Your task to perform on an android device: Open the calendar Image 0: 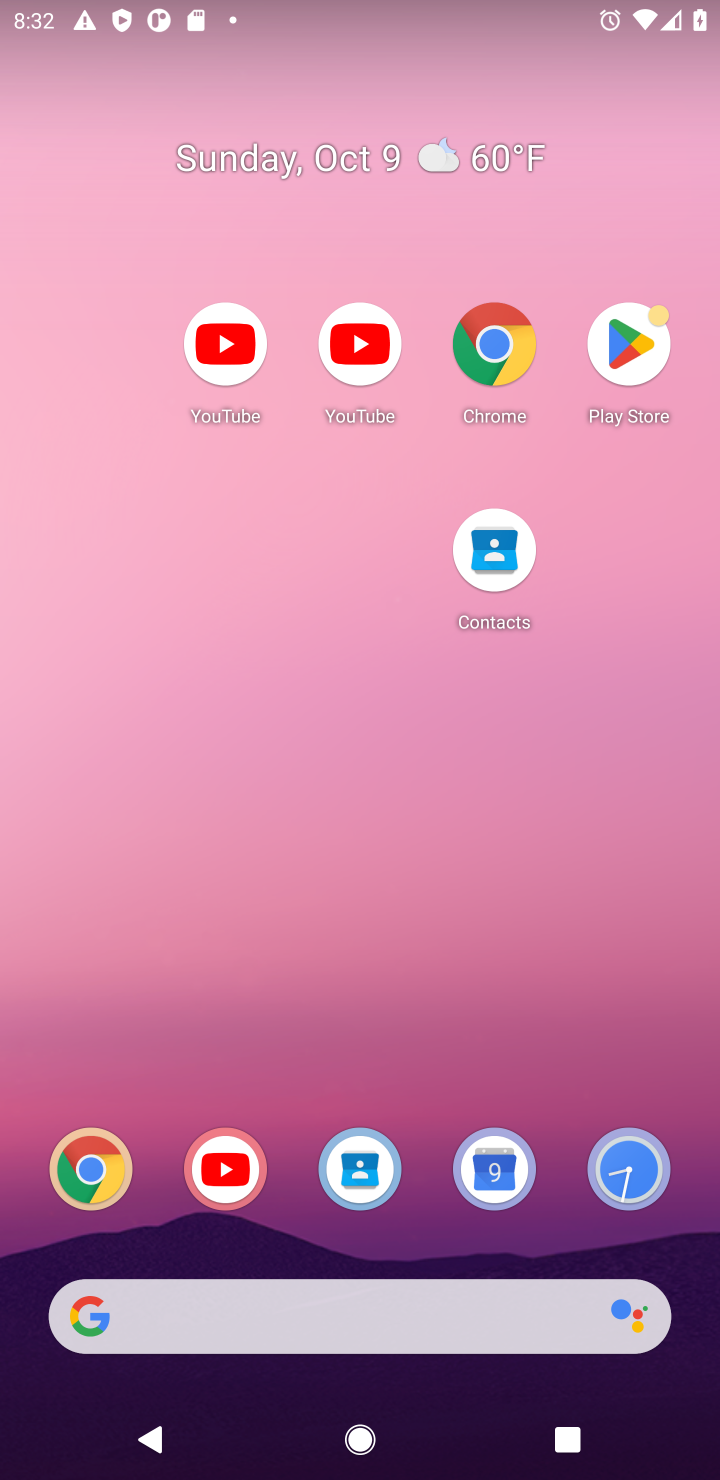
Step 0: click (274, 151)
Your task to perform on an android device: Open the calendar Image 1: 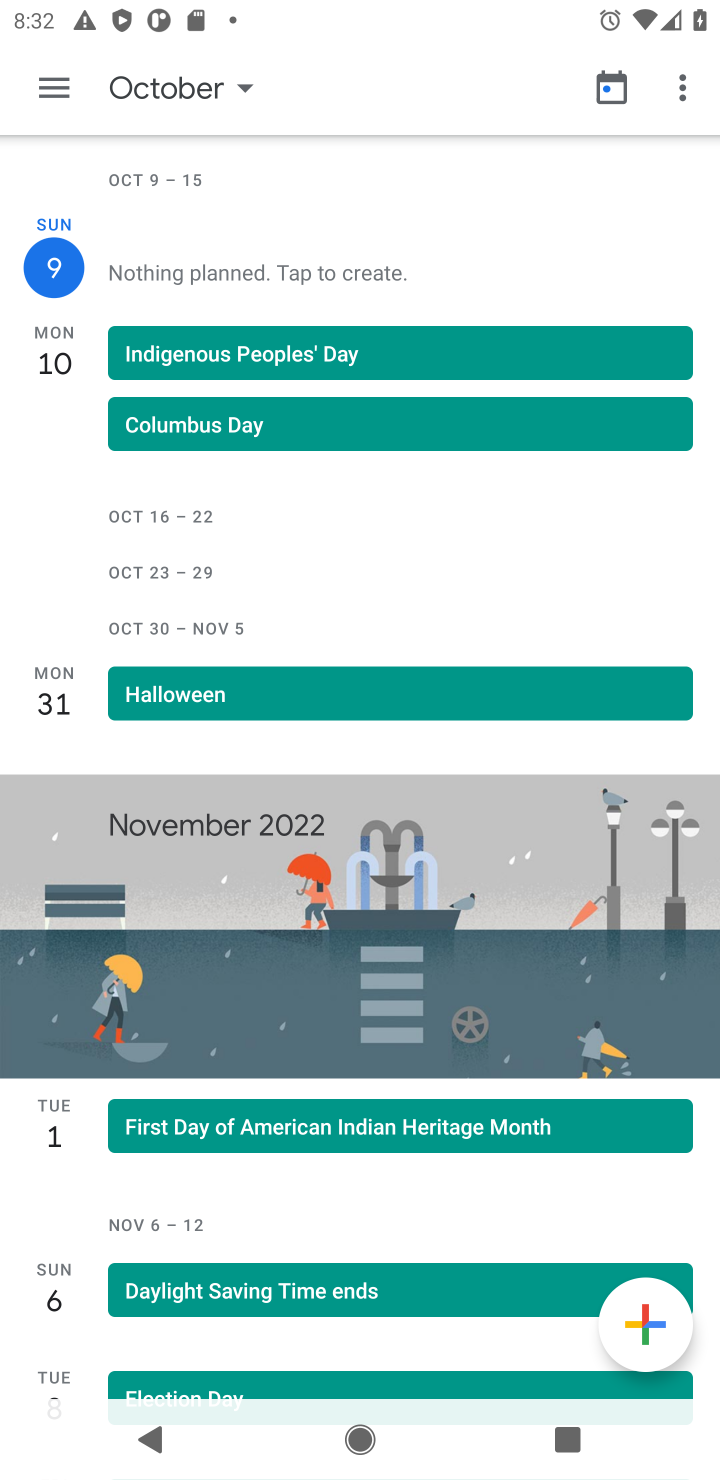
Step 1: task complete